Your task to perform on an android device: Open battery settings Image 0: 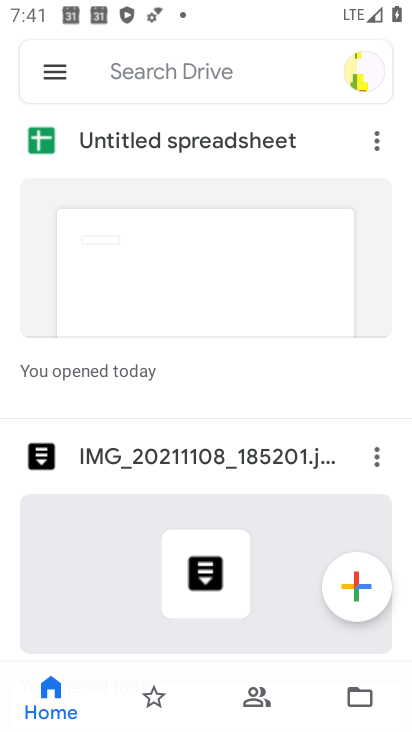
Step 0: press home button
Your task to perform on an android device: Open battery settings Image 1: 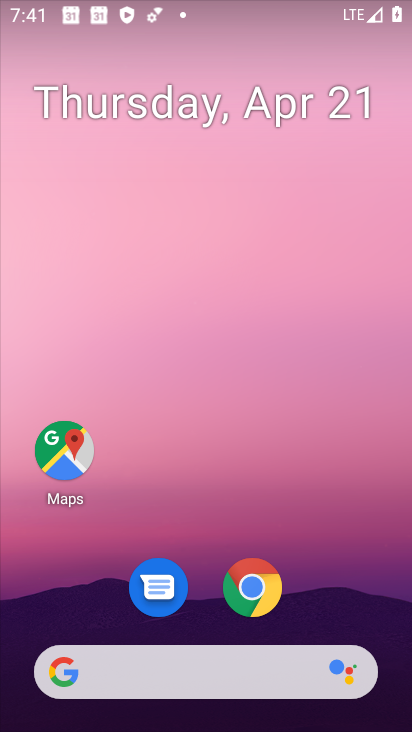
Step 1: drag from (342, 77) to (323, 1)
Your task to perform on an android device: Open battery settings Image 2: 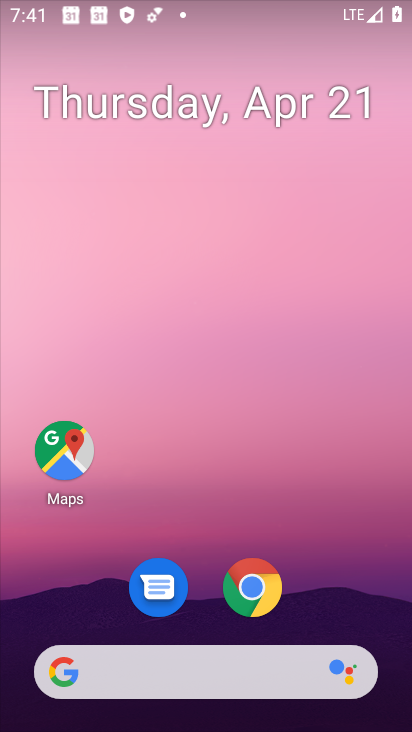
Step 2: drag from (314, 365) to (284, 9)
Your task to perform on an android device: Open battery settings Image 3: 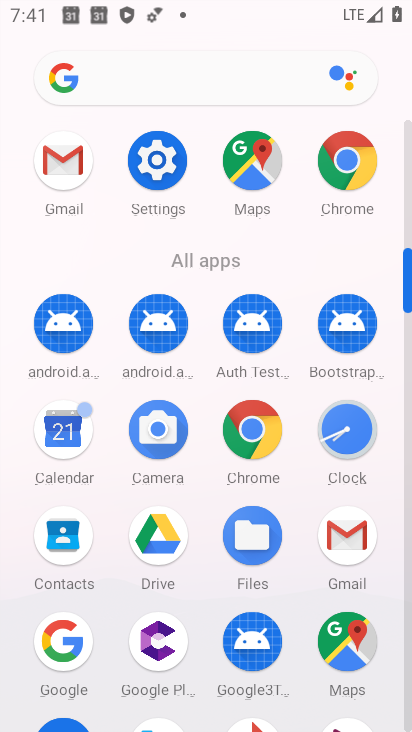
Step 3: click (170, 160)
Your task to perform on an android device: Open battery settings Image 4: 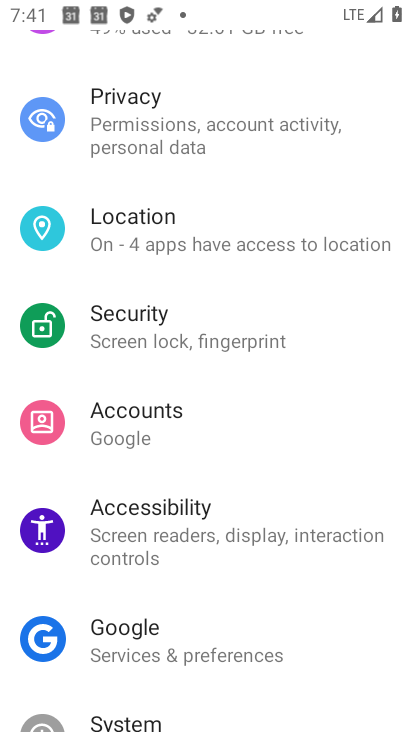
Step 4: drag from (352, 129) to (344, 520)
Your task to perform on an android device: Open battery settings Image 5: 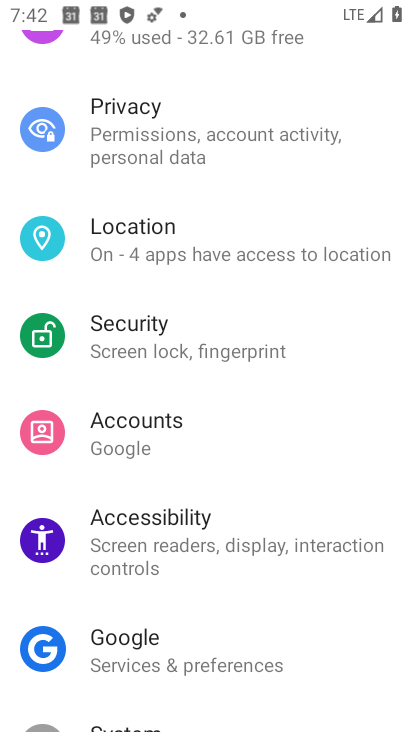
Step 5: drag from (348, 87) to (348, 721)
Your task to perform on an android device: Open battery settings Image 6: 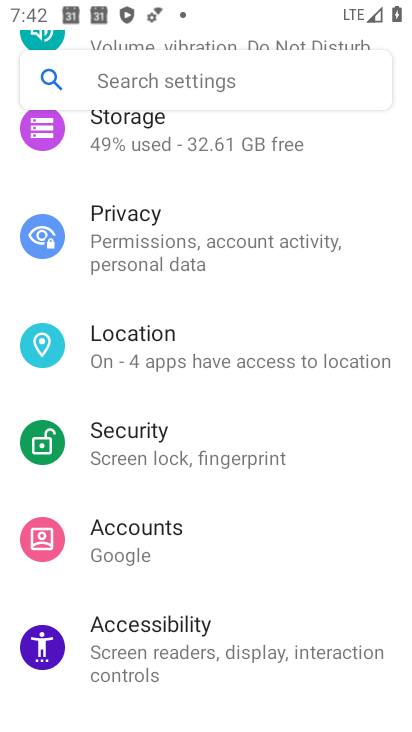
Step 6: drag from (373, 131) to (378, 638)
Your task to perform on an android device: Open battery settings Image 7: 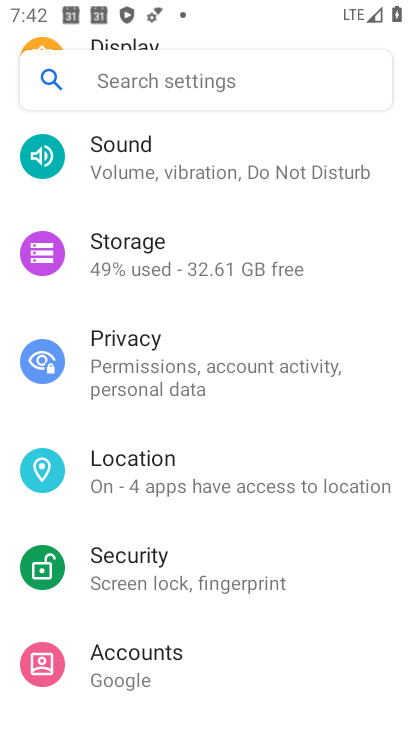
Step 7: drag from (393, 152) to (401, 704)
Your task to perform on an android device: Open battery settings Image 8: 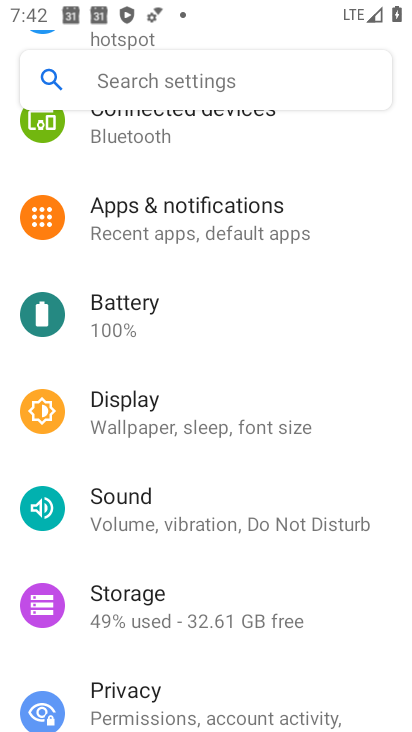
Step 8: click (122, 301)
Your task to perform on an android device: Open battery settings Image 9: 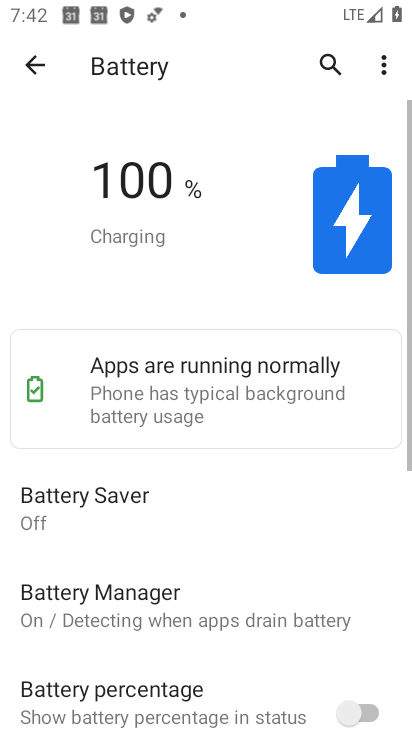
Step 9: task complete